Your task to perform on an android device: delete a single message in the gmail app Image 0: 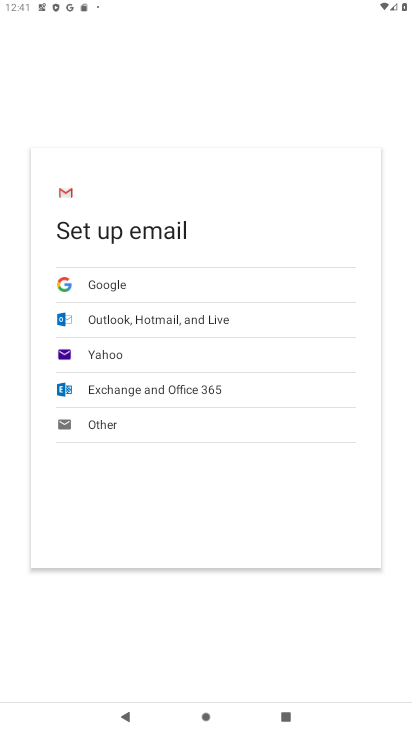
Step 0: press home button
Your task to perform on an android device: delete a single message in the gmail app Image 1: 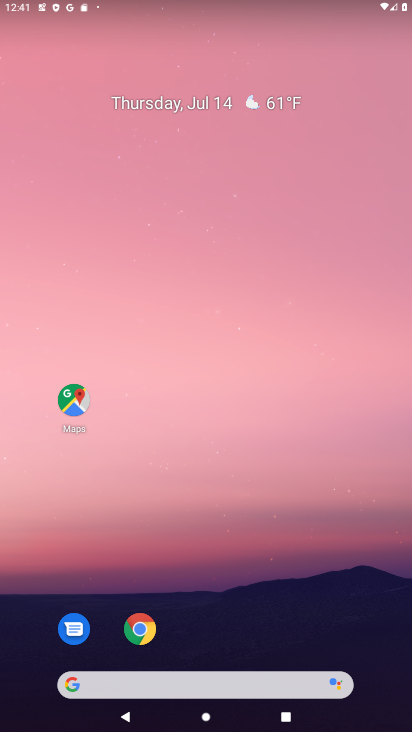
Step 1: drag from (185, 638) to (236, 214)
Your task to perform on an android device: delete a single message in the gmail app Image 2: 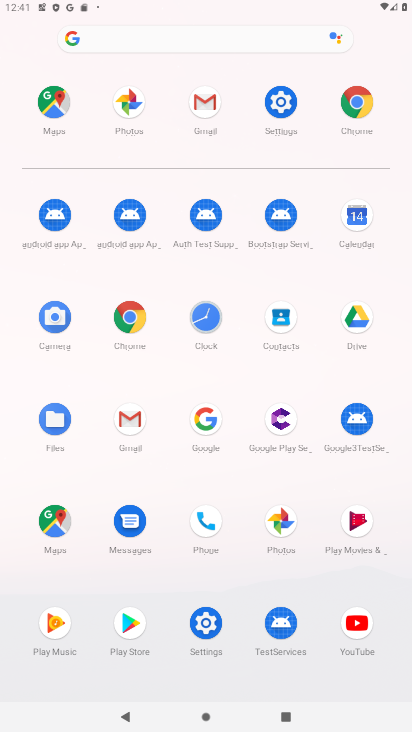
Step 2: click (207, 165)
Your task to perform on an android device: delete a single message in the gmail app Image 3: 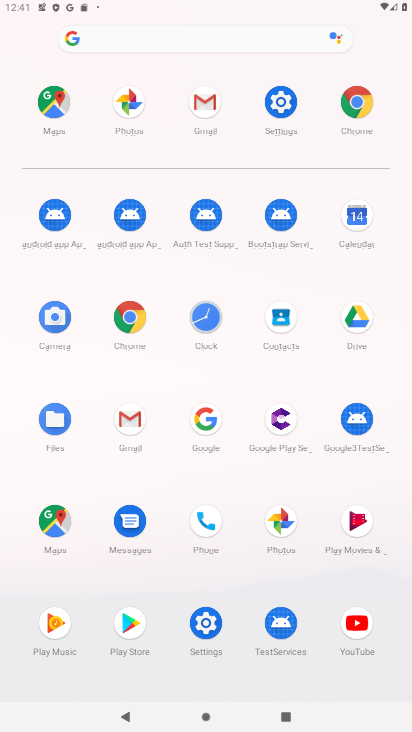
Step 3: click (198, 112)
Your task to perform on an android device: delete a single message in the gmail app Image 4: 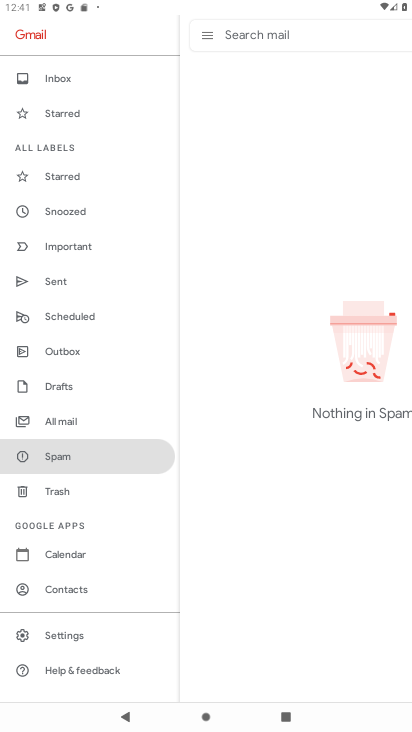
Step 4: click (88, 424)
Your task to perform on an android device: delete a single message in the gmail app Image 5: 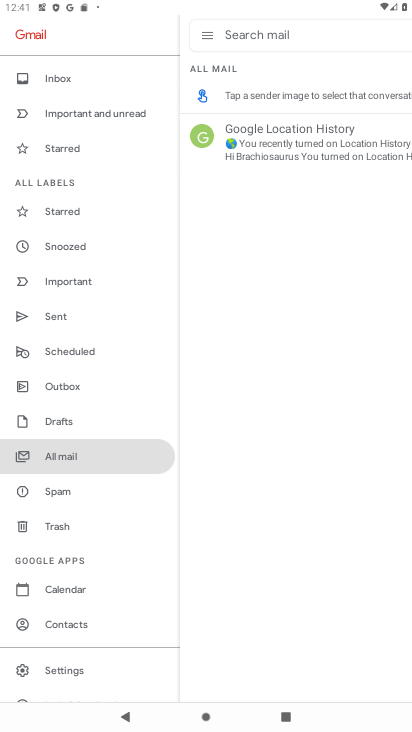
Step 5: click (209, 138)
Your task to perform on an android device: delete a single message in the gmail app Image 6: 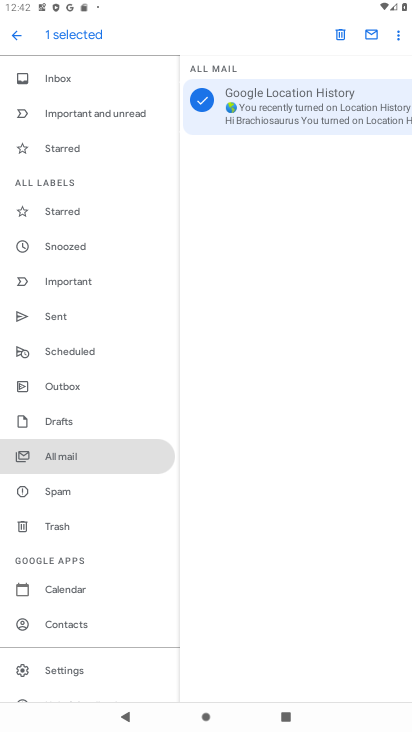
Step 6: click (206, 134)
Your task to perform on an android device: delete a single message in the gmail app Image 7: 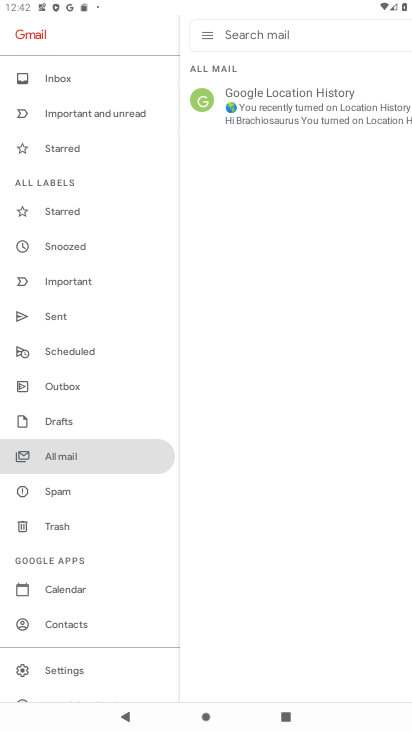
Step 7: click (197, 108)
Your task to perform on an android device: delete a single message in the gmail app Image 8: 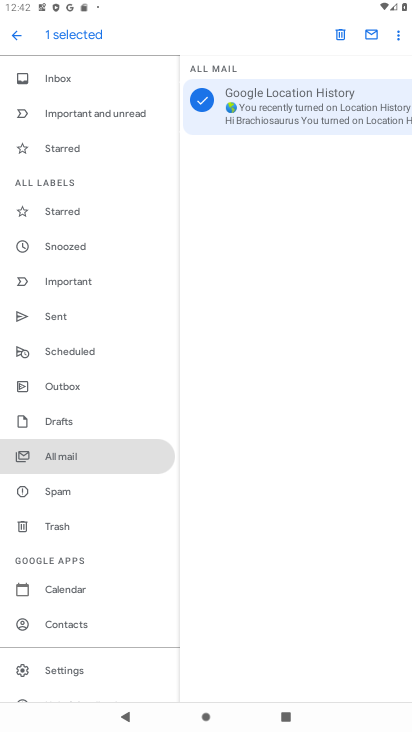
Step 8: click (339, 36)
Your task to perform on an android device: delete a single message in the gmail app Image 9: 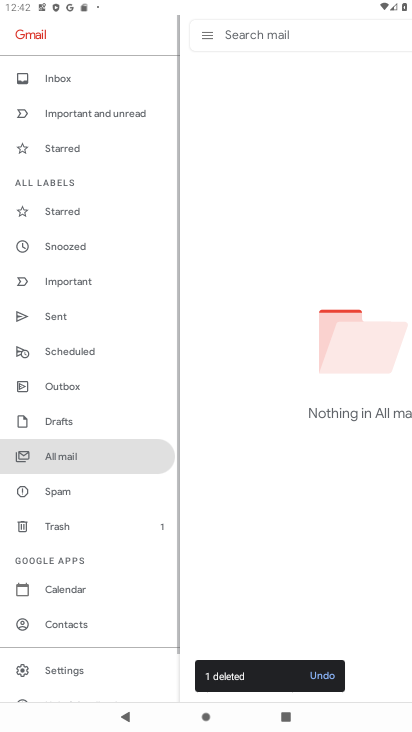
Step 9: task complete